Your task to perform on an android device: Turn on the flashlight Image 0: 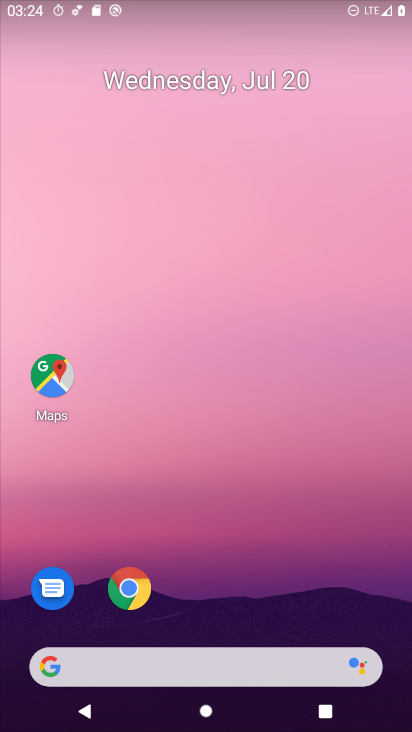
Step 0: drag from (189, 632) to (205, 42)
Your task to perform on an android device: Turn on the flashlight Image 1: 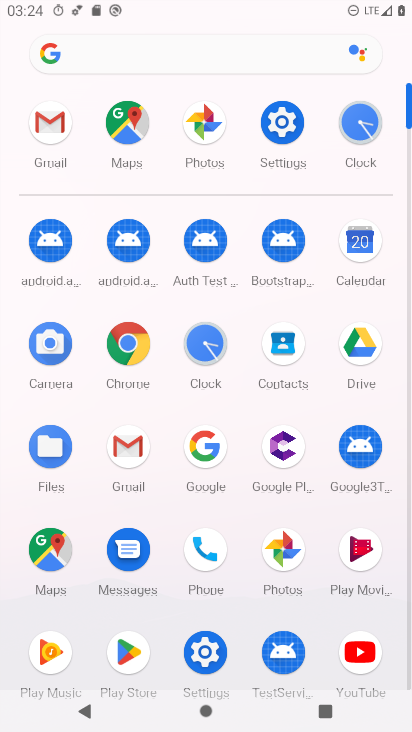
Step 1: click (283, 135)
Your task to perform on an android device: Turn on the flashlight Image 2: 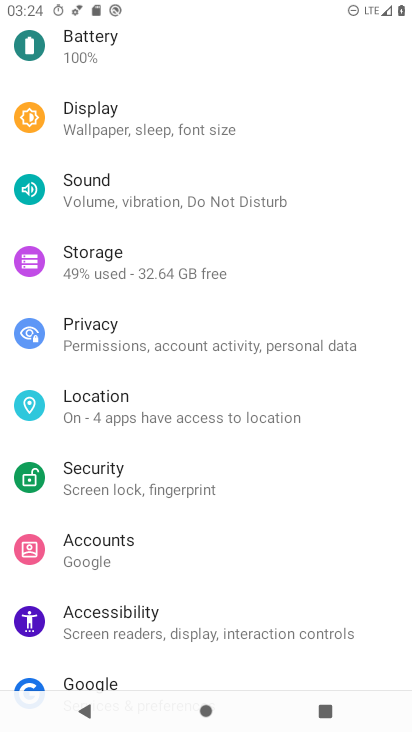
Step 2: task complete